Your task to perform on an android device: change the clock display to analog Image 0: 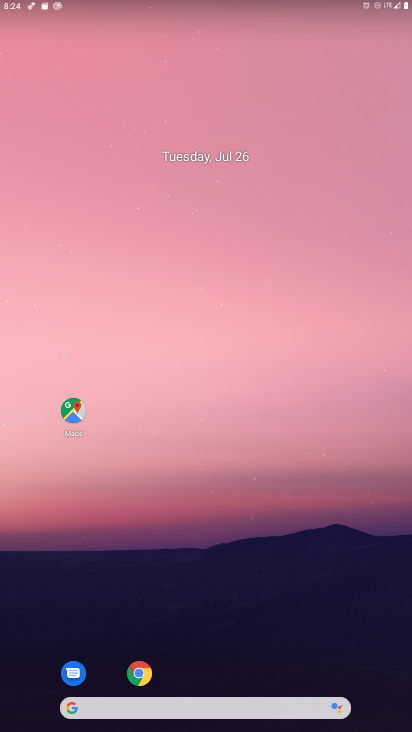
Step 0: drag from (380, 653) to (156, 62)
Your task to perform on an android device: change the clock display to analog Image 1: 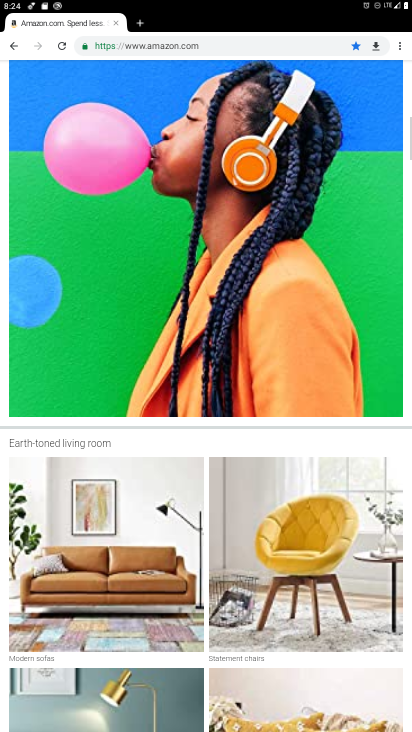
Step 1: press home button
Your task to perform on an android device: change the clock display to analog Image 2: 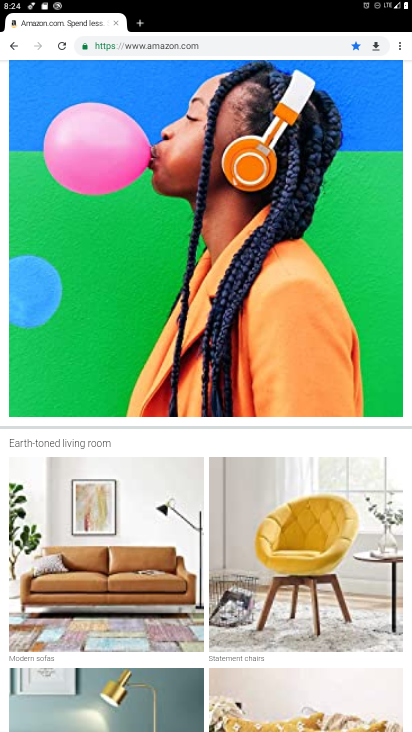
Step 2: drag from (380, 705) to (160, 64)
Your task to perform on an android device: change the clock display to analog Image 3: 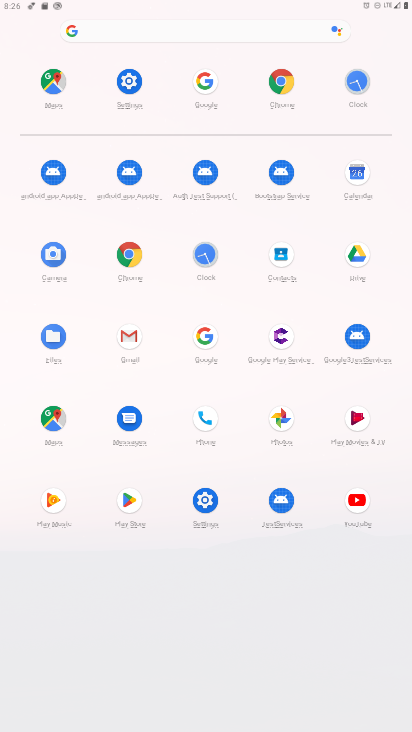
Step 3: click (202, 238)
Your task to perform on an android device: change the clock display to analog Image 4: 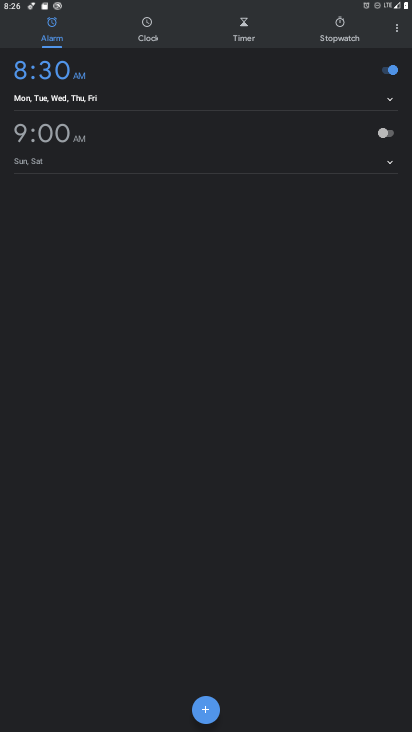
Step 4: click (395, 32)
Your task to perform on an android device: change the clock display to analog Image 5: 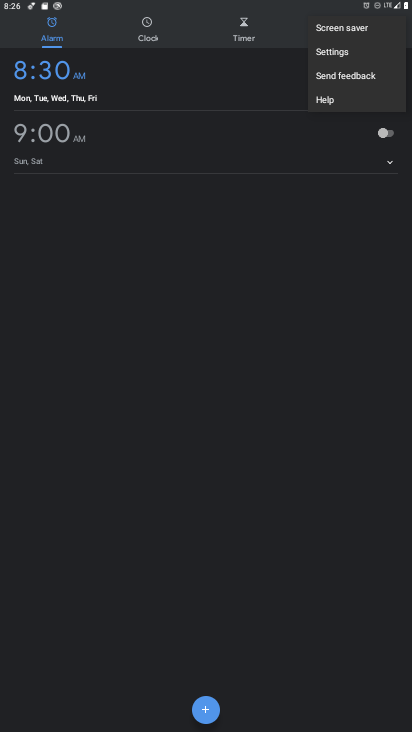
Step 5: click (336, 50)
Your task to perform on an android device: change the clock display to analog Image 6: 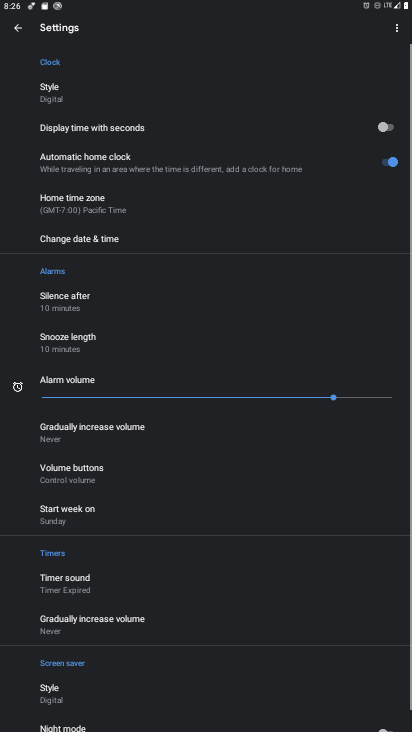
Step 6: click (76, 104)
Your task to perform on an android device: change the clock display to analog Image 7: 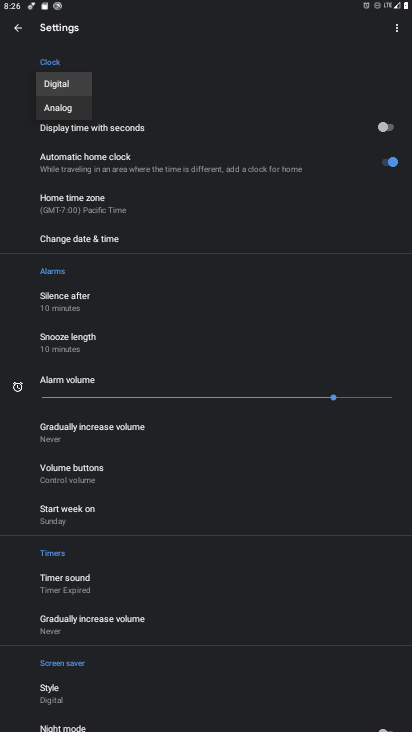
Step 7: click (62, 110)
Your task to perform on an android device: change the clock display to analog Image 8: 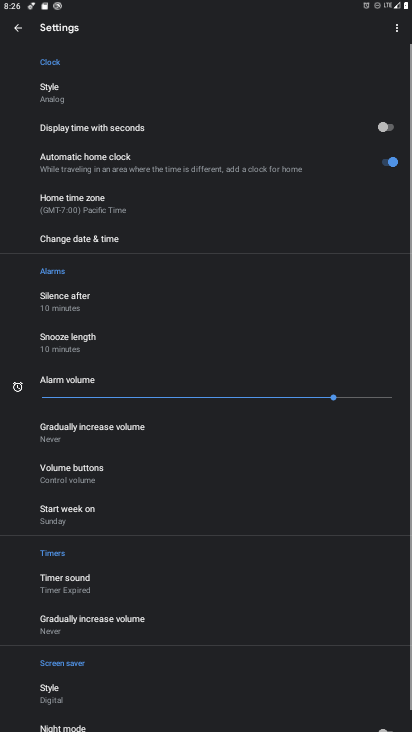
Step 8: task complete